Your task to perform on an android device: change the clock style Image 0: 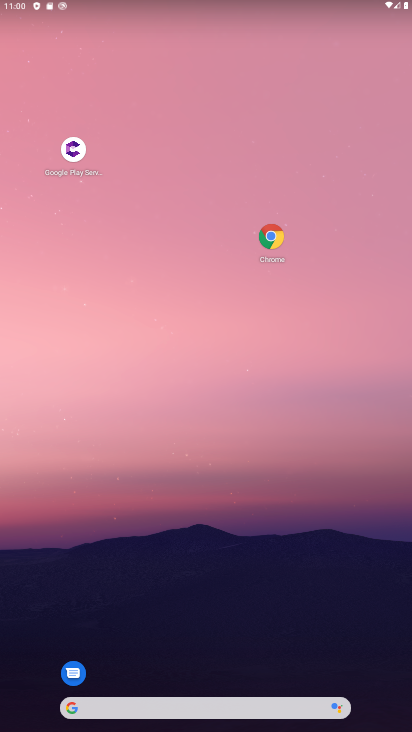
Step 0: drag from (214, 655) to (260, 114)
Your task to perform on an android device: change the clock style Image 1: 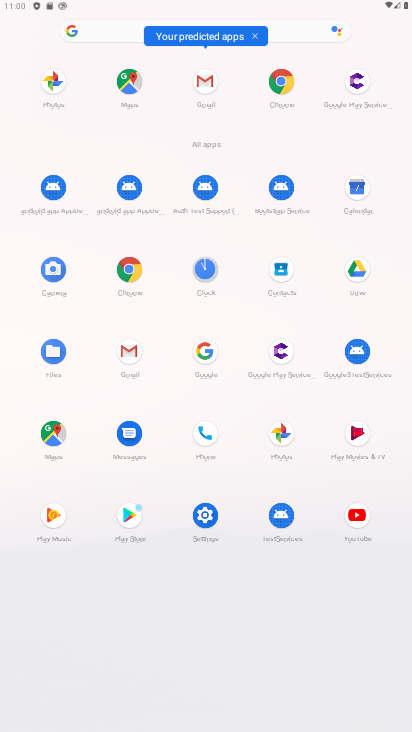
Step 1: drag from (200, 271) to (159, 151)
Your task to perform on an android device: change the clock style Image 2: 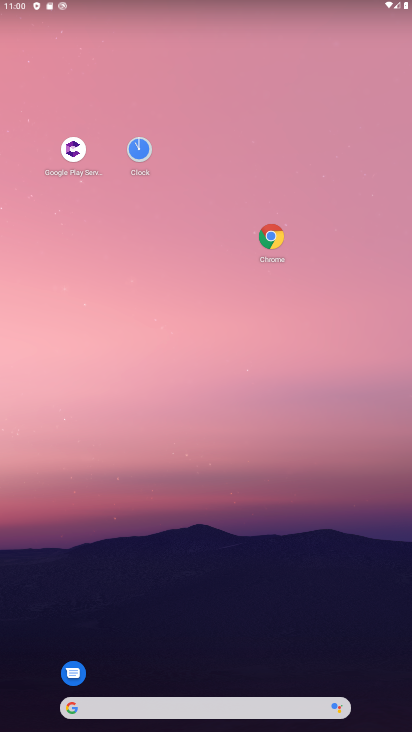
Step 2: click (145, 141)
Your task to perform on an android device: change the clock style Image 3: 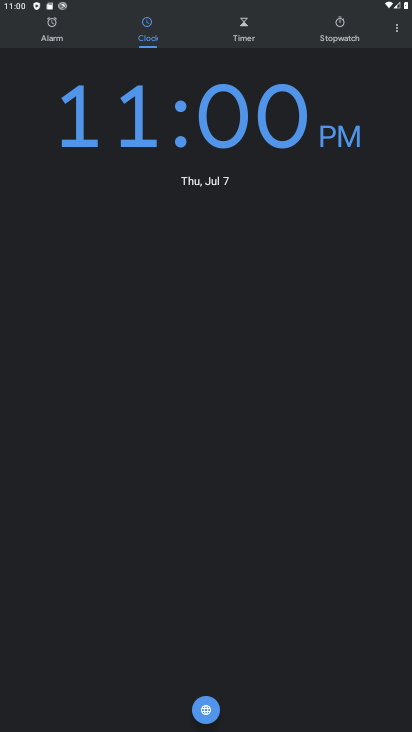
Step 3: click (397, 34)
Your task to perform on an android device: change the clock style Image 4: 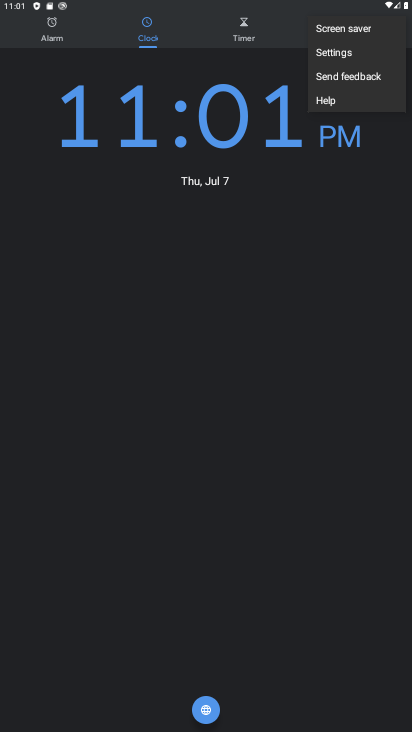
Step 4: click (359, 59)
Your task to perform on an android device: change the clock style Image 5: 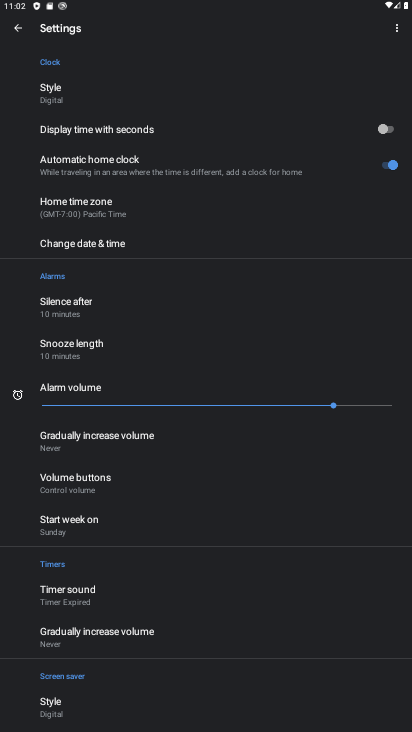
Step 5: click (72, 102)
Your task to perform on an android device: change the clock style Image 6: 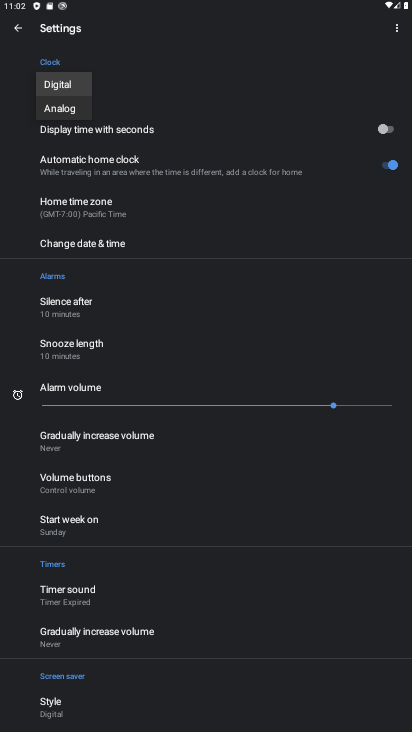
Step 6: click (74, 111)
Your task to perform on an android device: change the clock style Image 7: 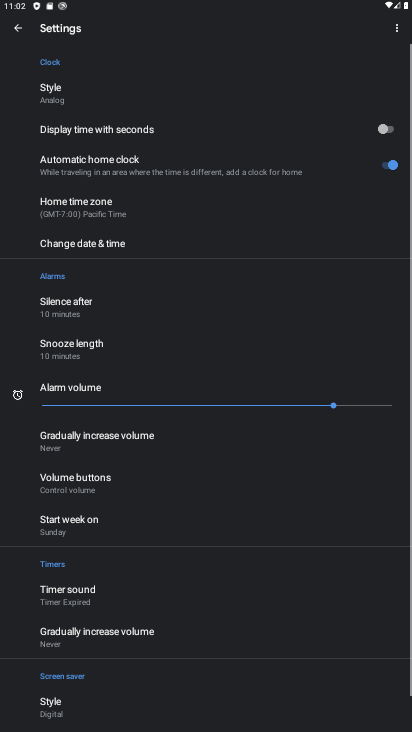
Step 7: task complete